Your task to perform on an android device: Go to sound settings Image 0: 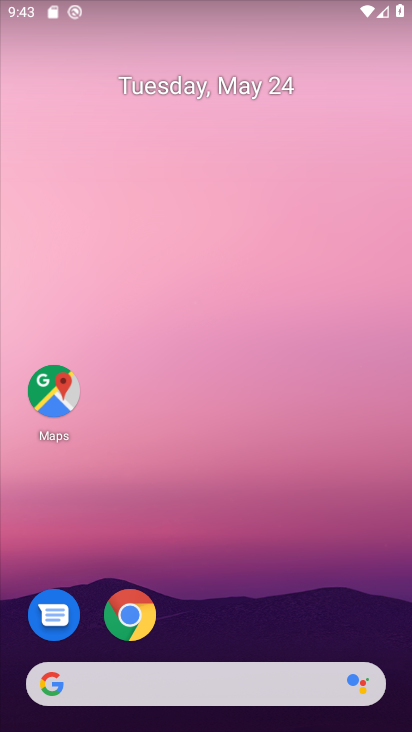
Step 0: drag from (389, 633) to (375, 175)
Your task to perform on an android device: Go to sound settings Image 1: 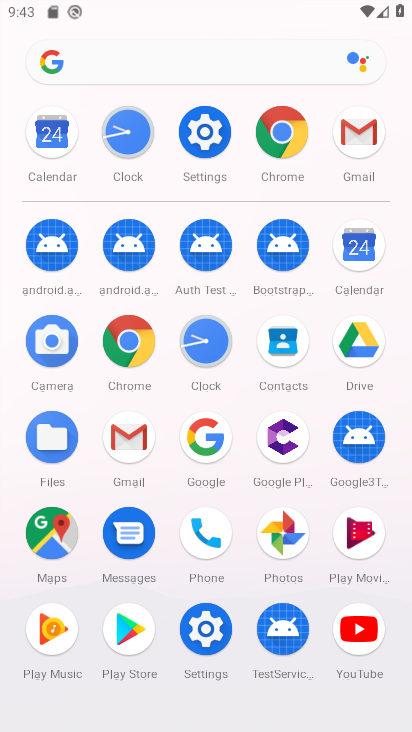
Step 1: click (221, 643)
Your task to perform on an android device: Go to sound settings Image 2: 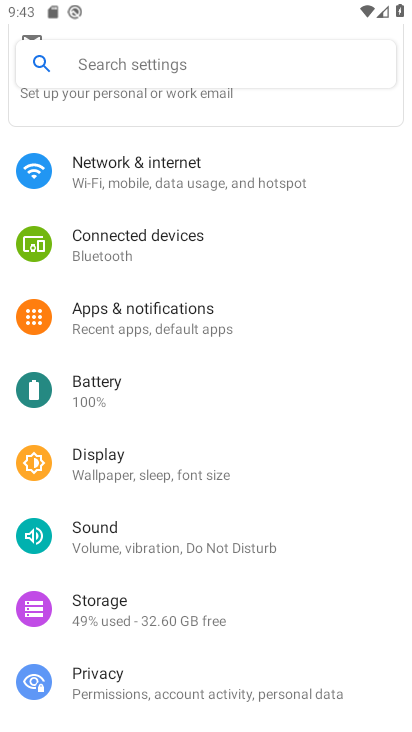
Step 2: drag from (298, 610) to (303, 439)
Your task to perform on an android device: Go to sound settings Image 3: 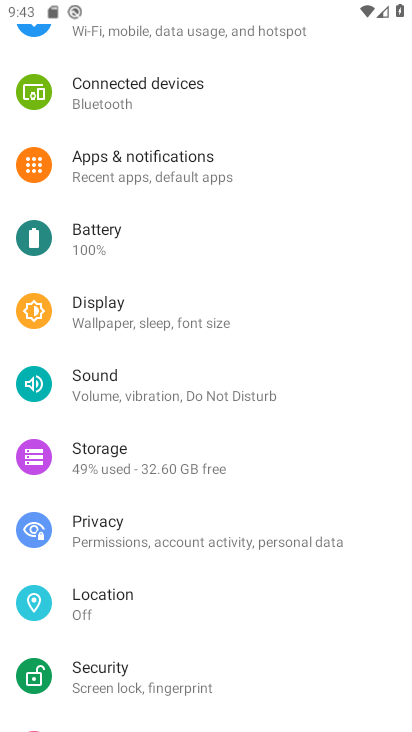
Step 3: drag from (328, 611) to (352, 484)
Your task to perform on an android device: Go to sound settings Image 4: 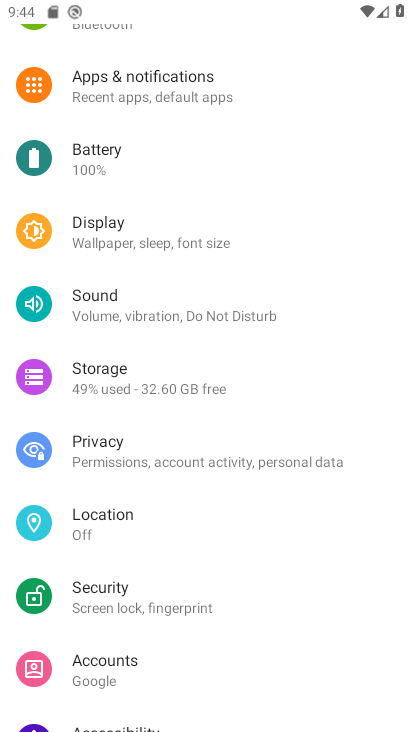
Step 4: drag from (335, 608) to (343, 442)
Your task to perform on an android device: Go to sound settings Image 5: 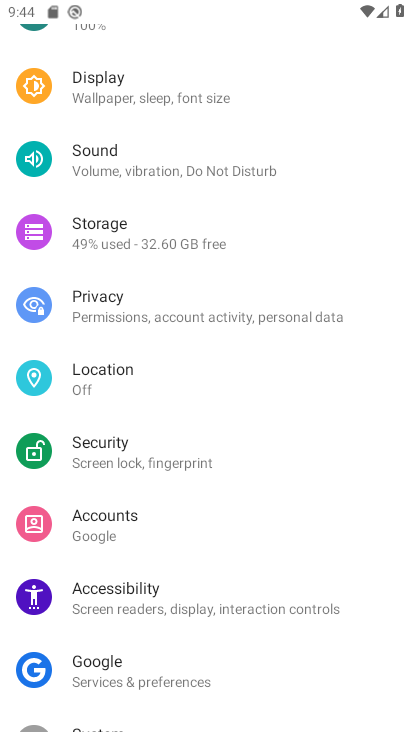
Step 5: drag from (337, 635) to (351, 440)
Your task to perform on an android device: Go to sound settings Image 6: 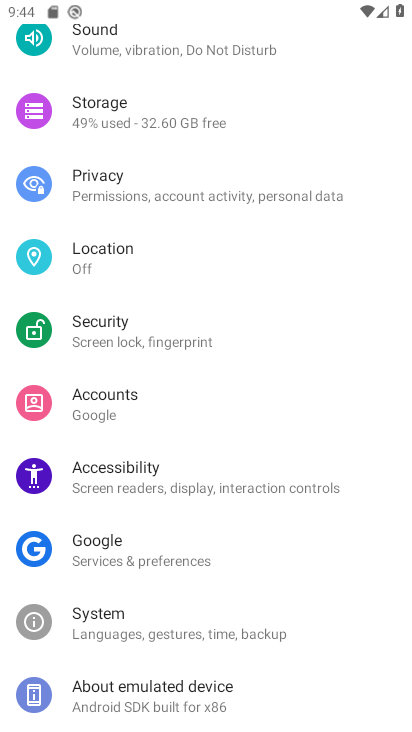
Step 6: drag from (354, 622) to (381, 430)
Your task to perform on an android device: Go to sound settings Image 7: 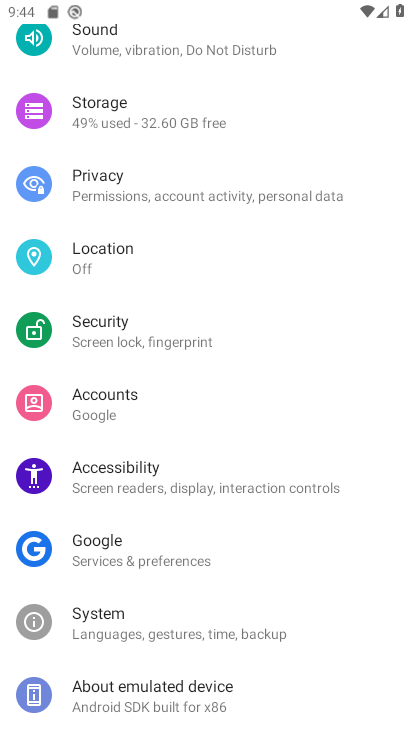
Step 7: drag from (372, 333) to (341, 509)
Your task to perform on an android device: Go to sound settings Image 8: 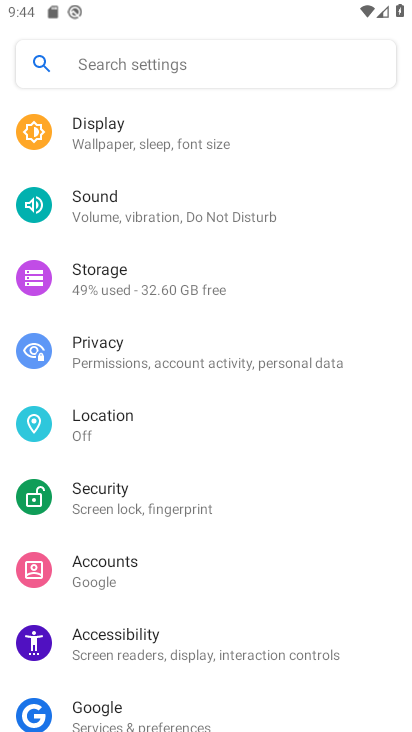
Step 8: drag from (368, 271) to (331, 426)
Your task to perform on an android device: Go to sound settings Image 9: 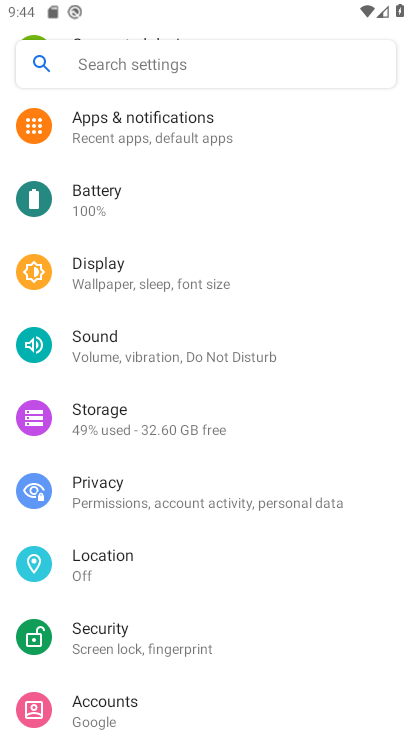
Step 9: click (272, 354)
Your task to perform on an android device: Go to sound settings Image 10: 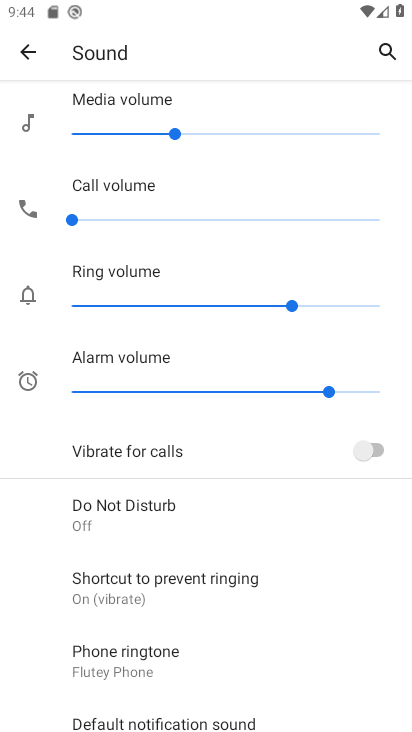
Step 10: task complete